Your task to perform on an android device: search for starred emails in the gmail app Image 0: 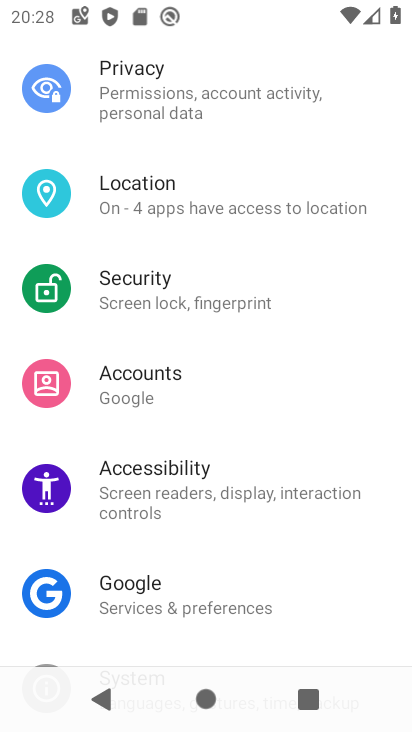
Step 0: press home button
Your task to perform on an android device: search for starred emails in the gmail app Image 1: 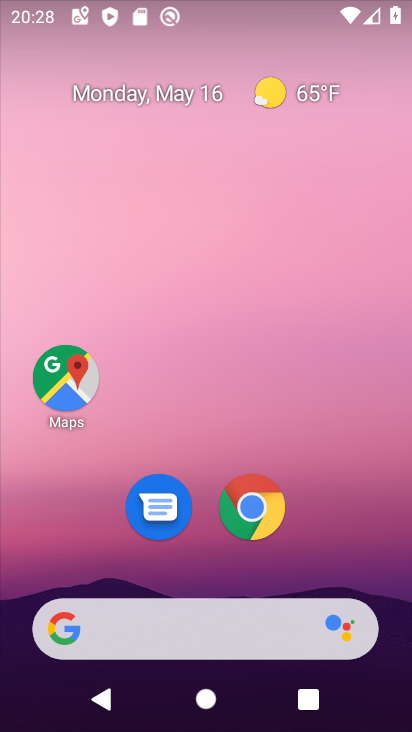
Step 1: drag from (175, 571) to (189, 2)
Your task to perform on an android device: search for starred emails in the gmail app Image 2: 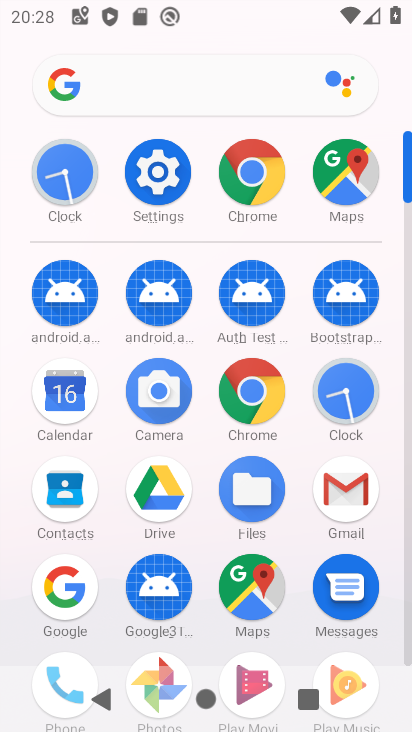
Step 2: click (353, 498)
Your task to perform on an android device: search for starred emails in the gmail app Image 3: 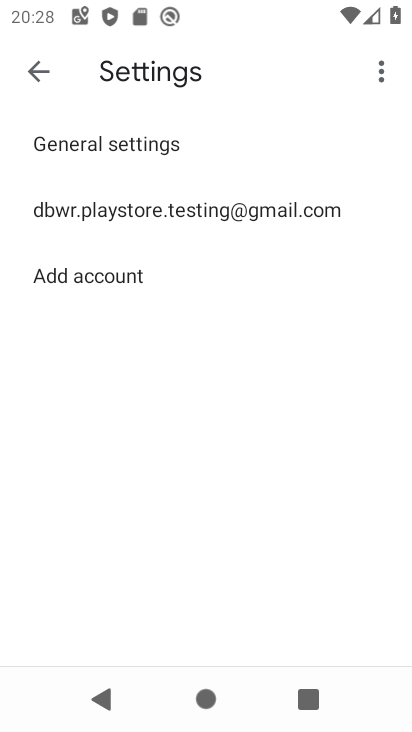
Step 3: click (46, 81)
Your task to perform on an android device: search for starred emails in the gmail app Image 4: 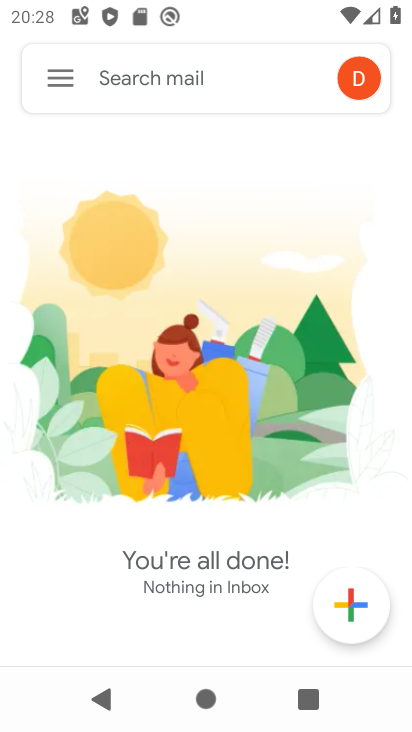
Step 4: click (45, 81)
Your task to perform on an android device: search for starred emails in the gmail app Image 5: 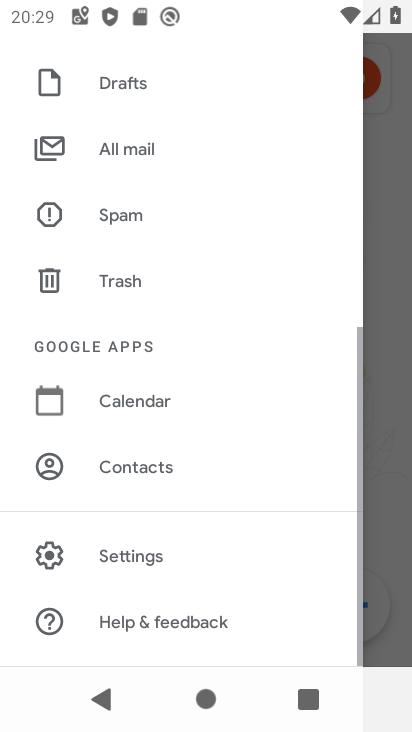
Step 5: drag from (66, 119) to (88, 569)
Your task to perform on an android device: search for starred emails in the gmail app Image 6: 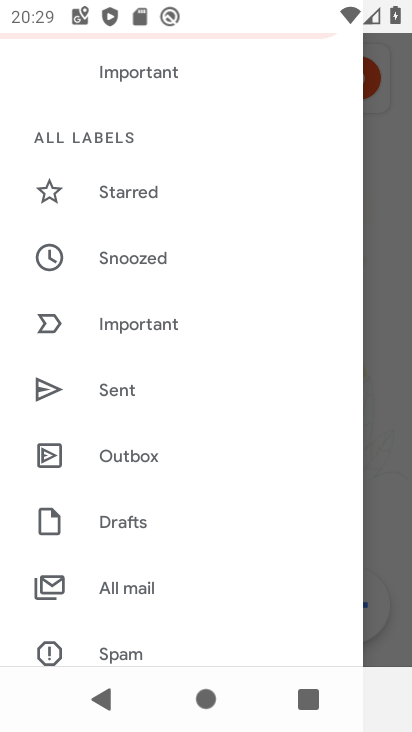
Step 6: click (106, 199)
Your task to perform on an android device: search for starred emails in the gmail app Image 7: 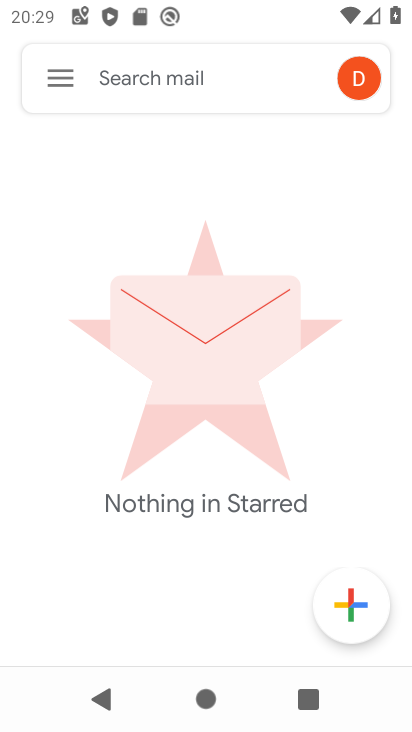
Step 7: task complete